Your task to perform on an android device: What's the weather? Image 0: 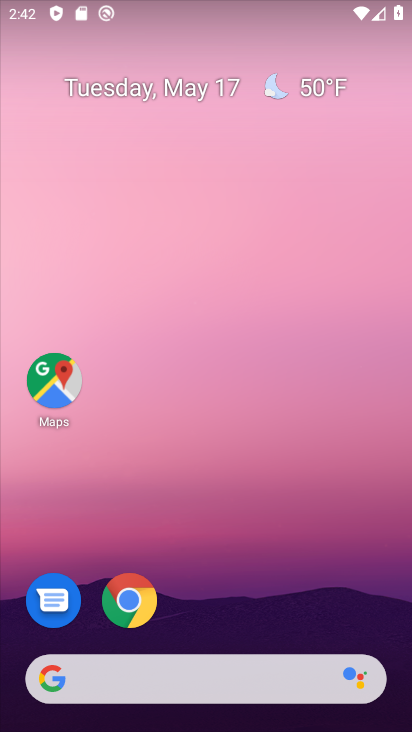
Step 0: drag from (208, 507) to (215, 243)
Your task to perform on an android device: What's the weather? Image 1: 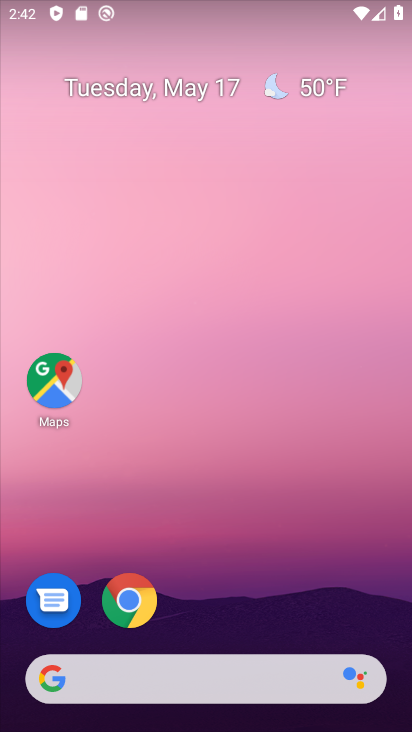
Step 1: drag from (260, 595) to (263, 143)
Your task to perform on an android device: What's the weather? Image 2: 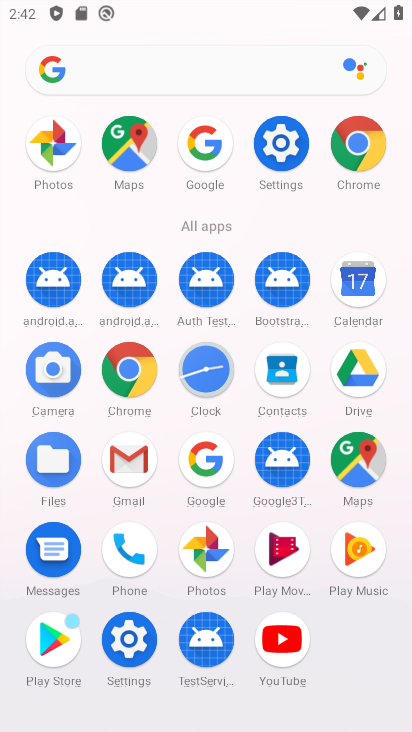
Step 2: click (189, 476)
Your task to perform on an android device: What's the weather? Image 3: 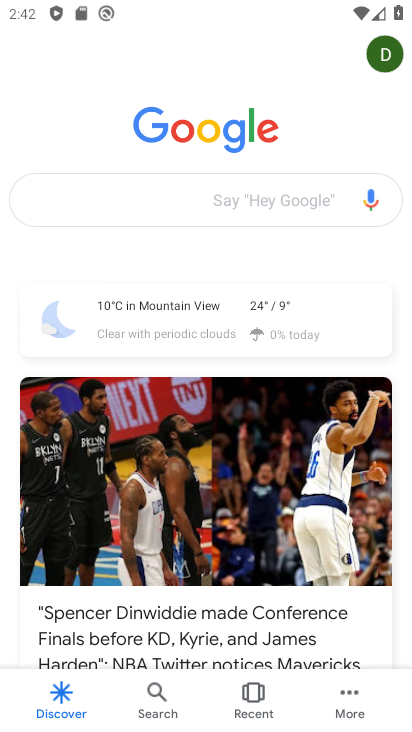
Step 3: click (186, 197)
Your task to perform on an android device: What's the weather? Image 4: 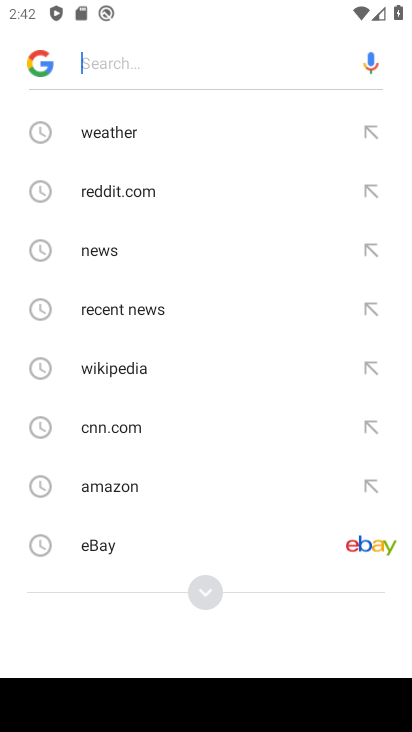
Step 4: type "whats the weather"
Your task to perform on an android device: What's the weather? Image 5: 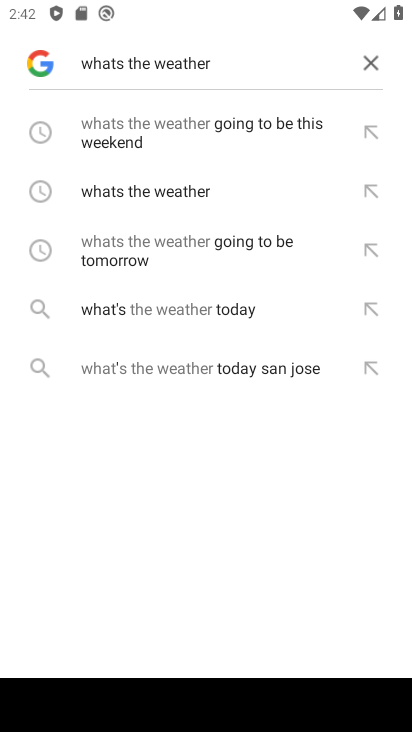
Step 5: click (147, 201)
Your task to perform on an android device: What's the weather? Image 6: 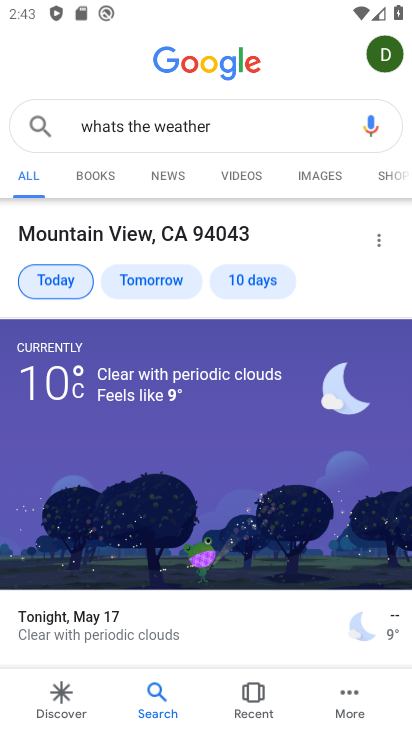
Step 6: task complete